Your task to perform on an android device: clear history in the chrome app Image 0: 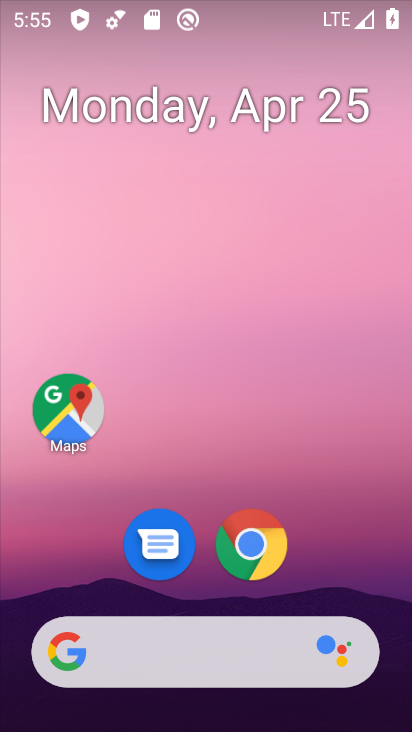
Step 0: click (255, 533)
Your task to perform on an android device: clear history in the chrome app Image 1: 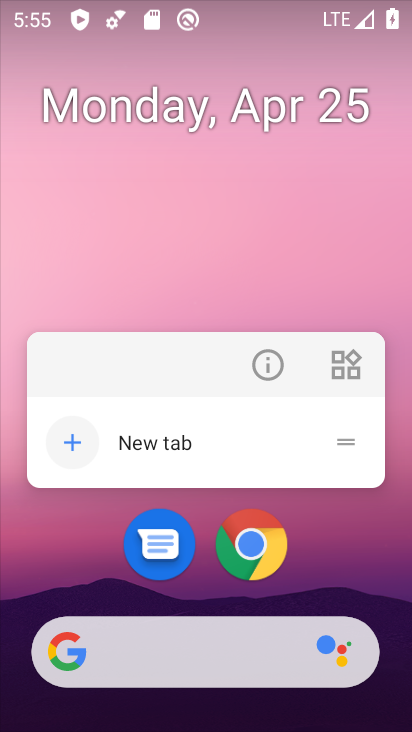
Step 1: click (320, 574)
Your task to perform on an android device: clear history in the chrome app Image 2: 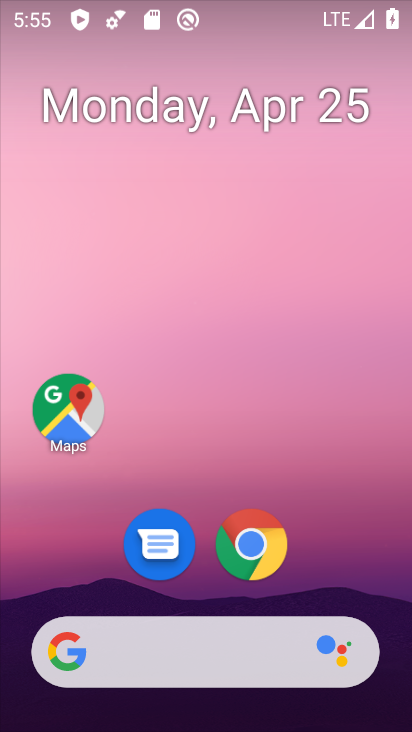
Step 2: drag from (341, 569) to (323, 150)
Your task to perform on an android device: clear history in the chrome app Image 3: 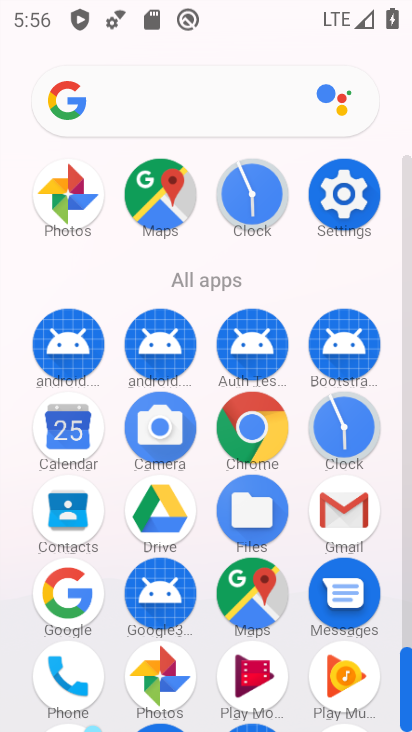
Step 3: click (248, 420)
Your task to perform on an android device: clear history in the chrome app Image 4: 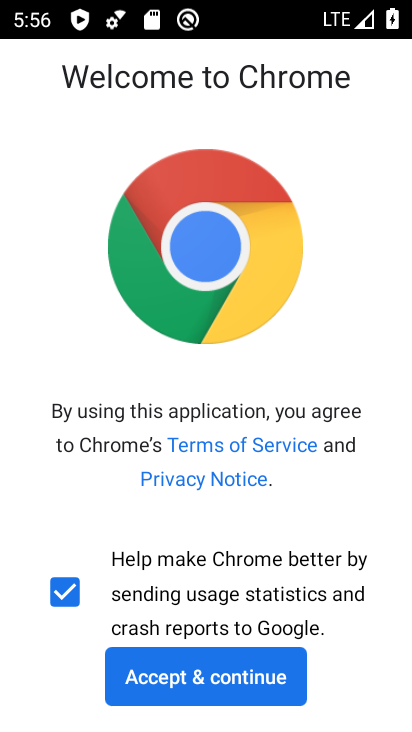
Step 4: click (235, 681)
Your task to perform on an android device: clear history in the chrome app Image 5: 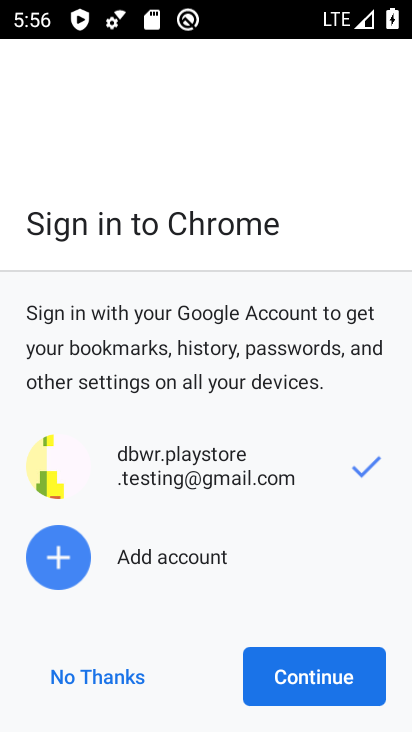
Step 5: click (359, 655)
Your task to perform on an android device: clear history in the chrome app Image 6: 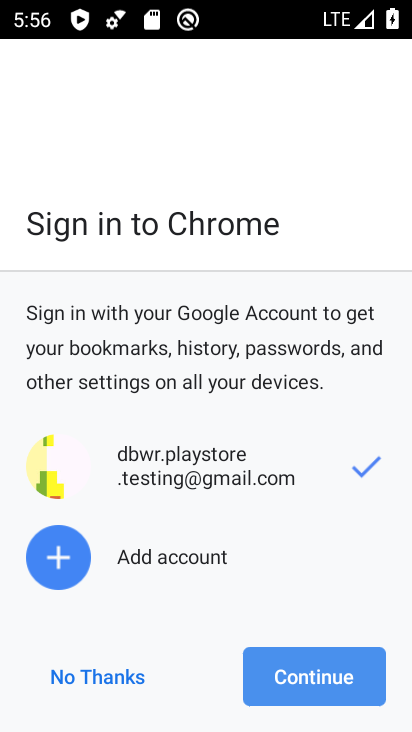
Step 6: click (359, 655)
Your task to perform on an android device: clear history in the chrome app Image 7: 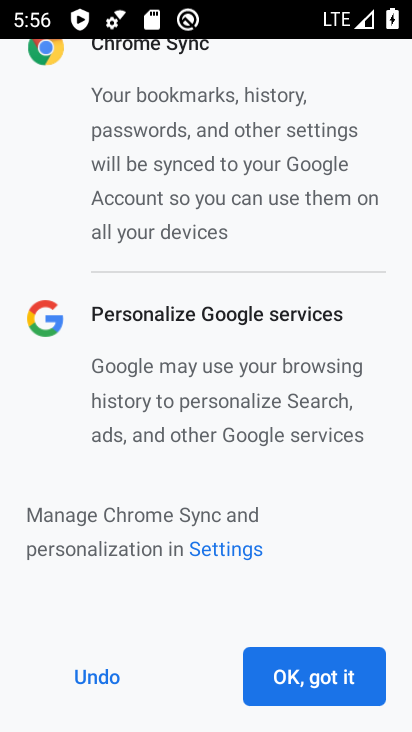
Step 7: click (359, 655)
Your task to perform on an android device: clear history in the chrome app Image 8: 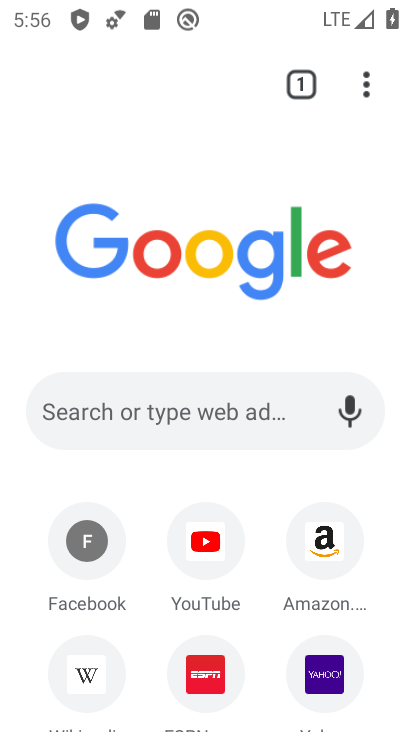
Step 8: task complete